Your task to perform on an android device: Open the settings Image 0: 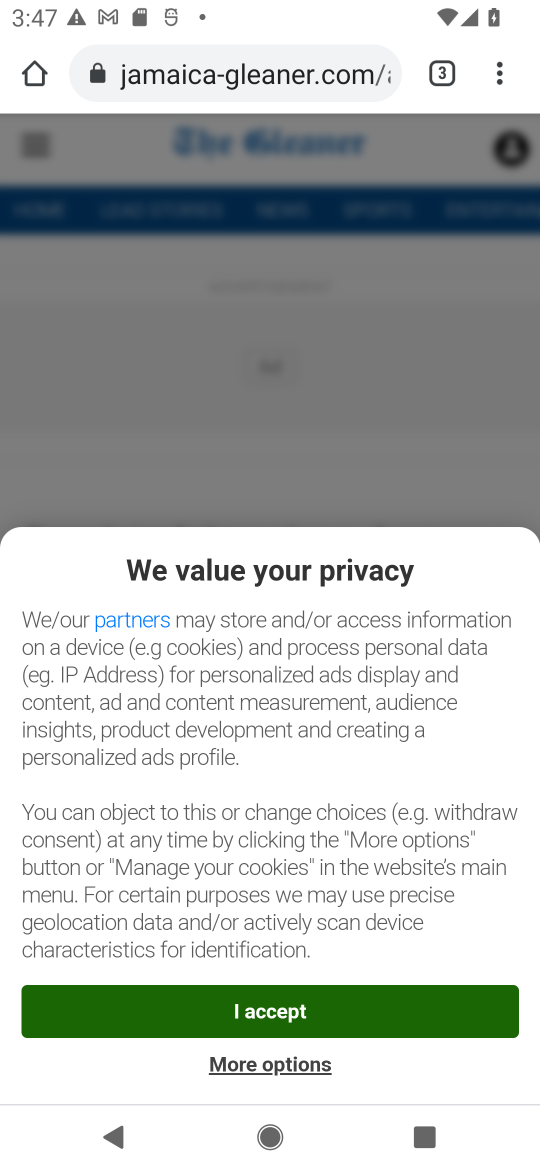
Step 0: press home button
Your task to perform on an android device: Open the settings Image 1: 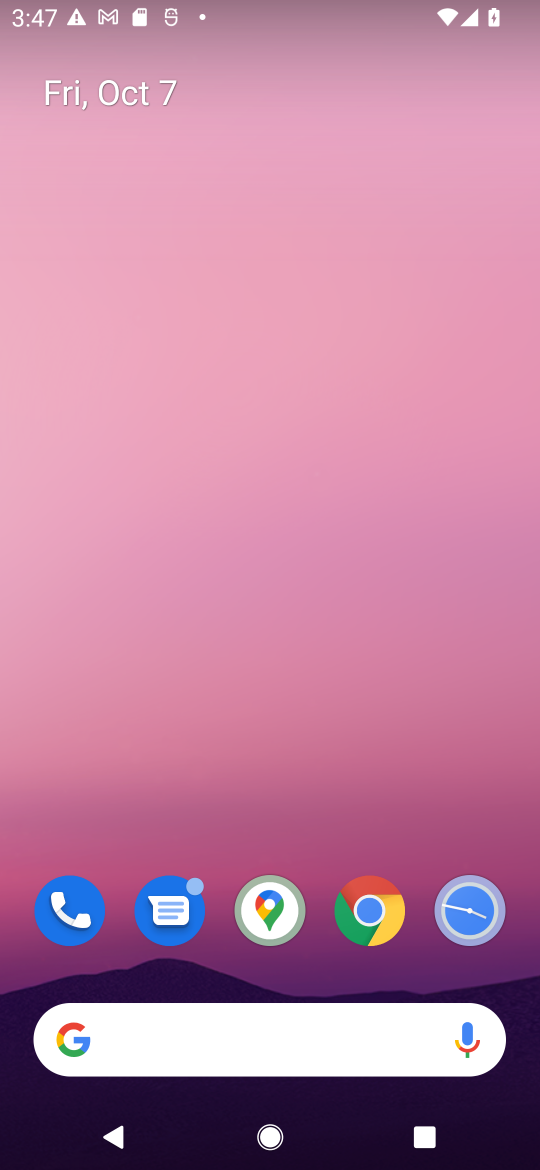
Step 1: drag from (289, 953) to (281, 63)
Your task to perform on an android device: Open the settings Image 2: 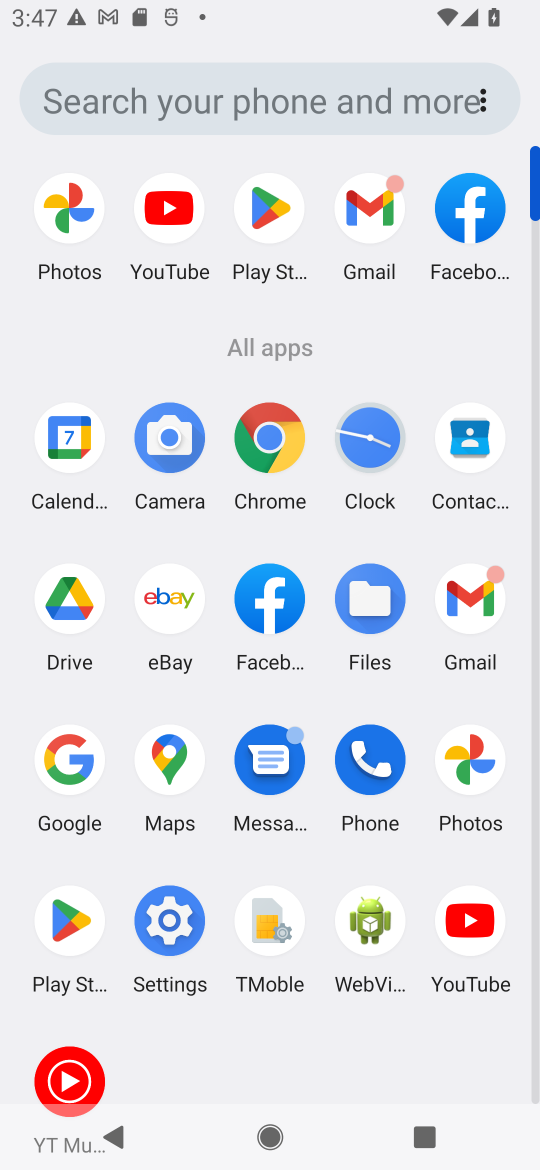
Step 2: click (165, 937)
Your task to perform on an android device: Open the settings Image 3: 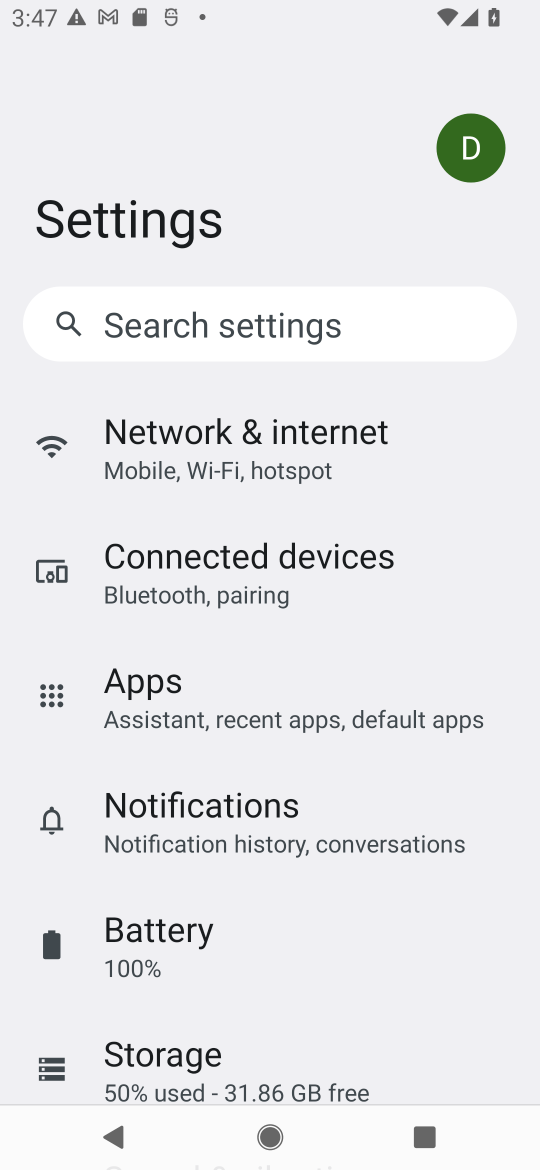
Step 3: task complete